Your task to perform on an android device: set an alarm Image 0: 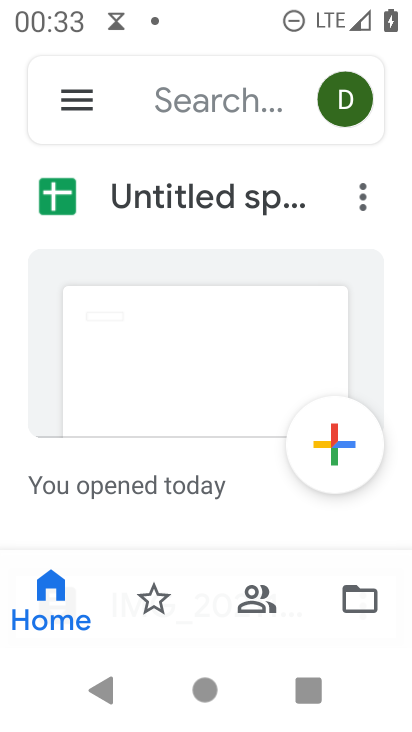
Step 0: press home button
Your task to perform on an android device: set an alarm Image 1: 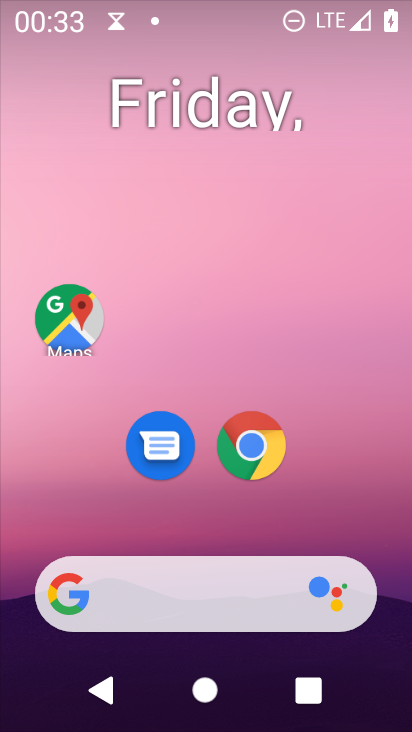
Step 1: drag from (233, 727) to (225, 57)
Your task to perform on an android device: set an alarm Image 2: 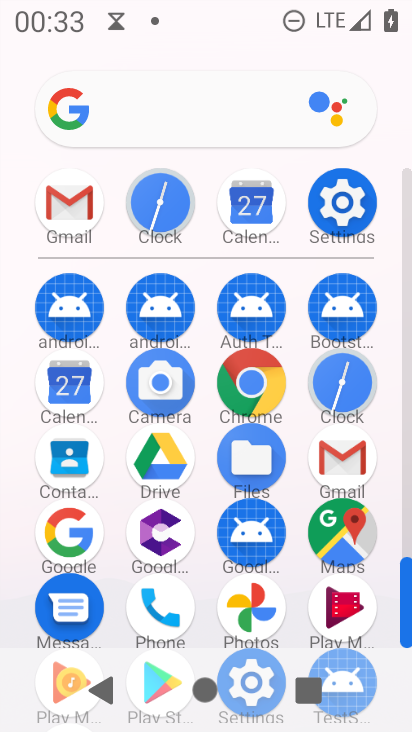
Step 2: click (339, 390)
Your task to perform on an android device: set an alarm Image 3: 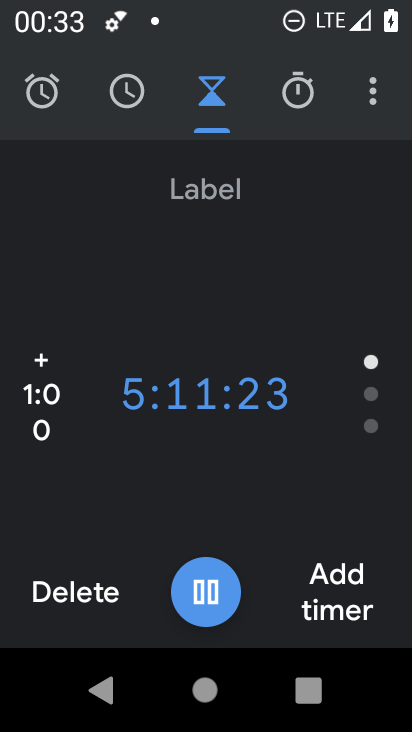
Step 3: click (47, 85)
Your task to perform on an android device: set an alarm Image 4: 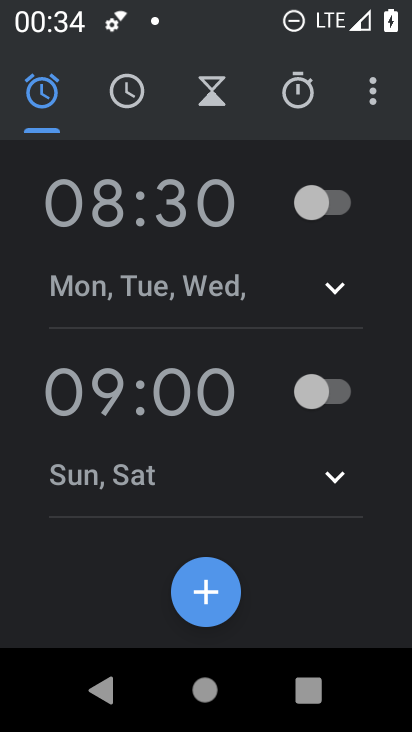
Step 4: task complete